Your task to perform on an android device: open chrome and create a bookmark for the current page Image 0: 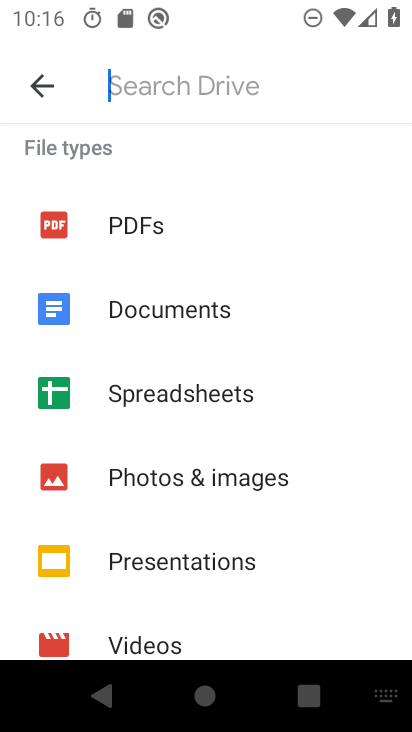
Step 0: press home button
Your task to perform on an android device: open chrome and create a bookmark for the current page Image 1: 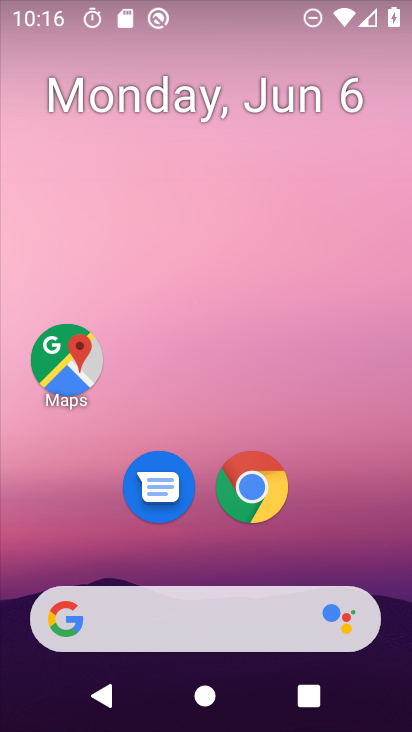
Step 1: drag from (391, 638) to (282, 159)
Your task to perform on an android device: open chrome and create a bookmark for the current page Image 2: 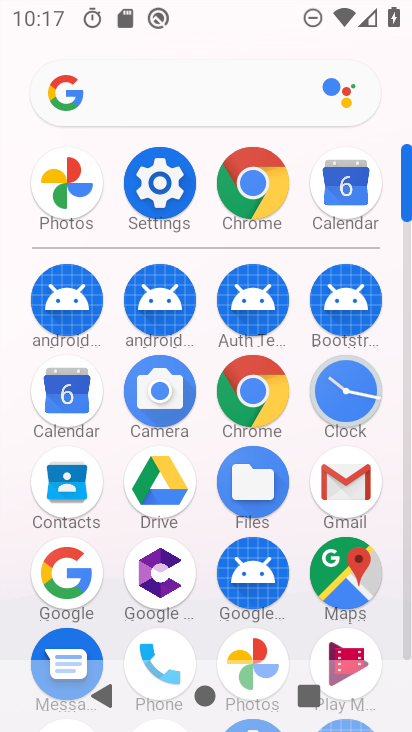
Step 2: click (262, 176)
Your task to perform on an android device: open chrome and create a bookmark for the current page Image 3: 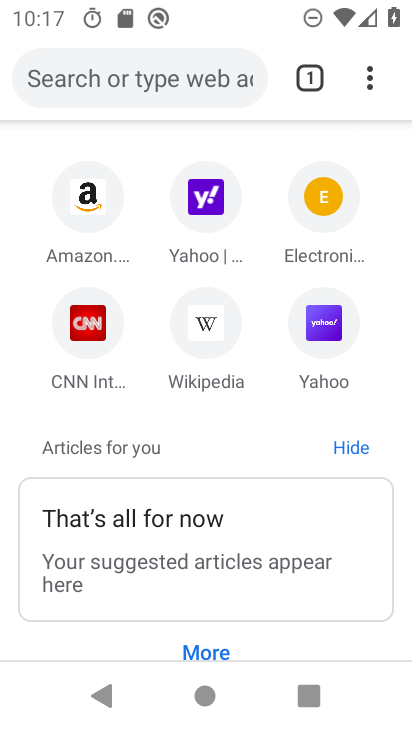
Step 3: click (369, 72)
Your task to perform on an android device: open chrome and create a bookmark for the current page Image 4: 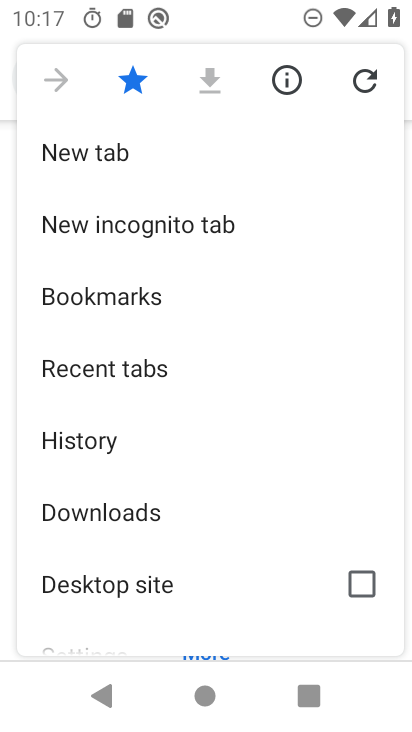
Step 4: task complete